Your task to perform on an android device: Open network settings Image 0: 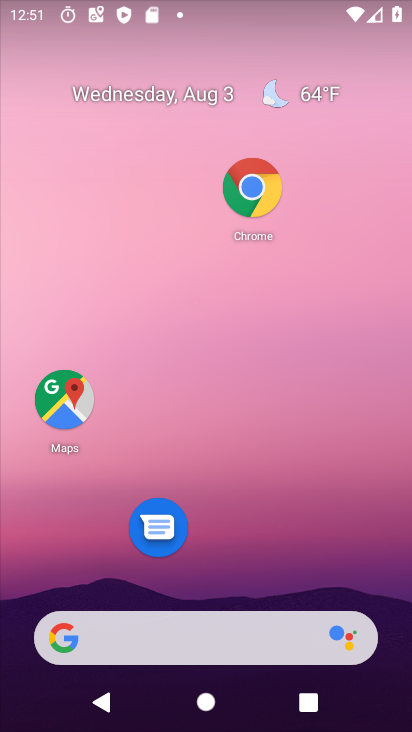
Step 0: drag from (227, 587) to (279, 85)
Your task to perform on an android device: Open network settings Image 1: 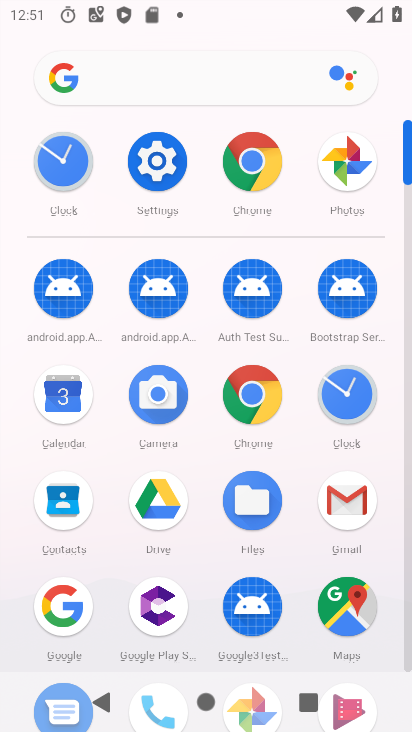
Step 1: click (165, 160)
Your task to perform on an android device: Open network settings Image 2: 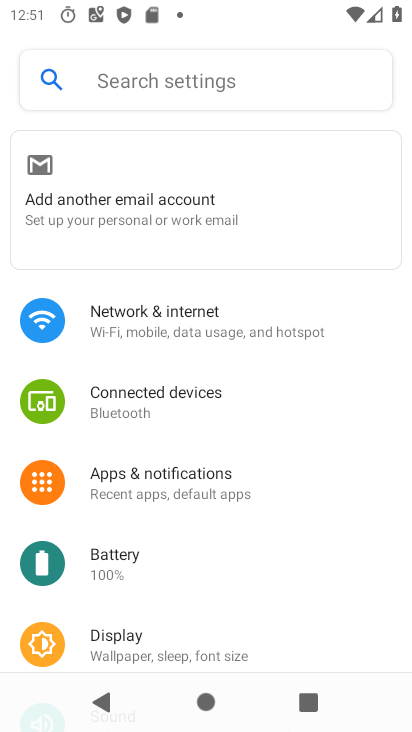
Step 2: click (188, 333)
Your task to perform on an android device: Open network settings Image 3: 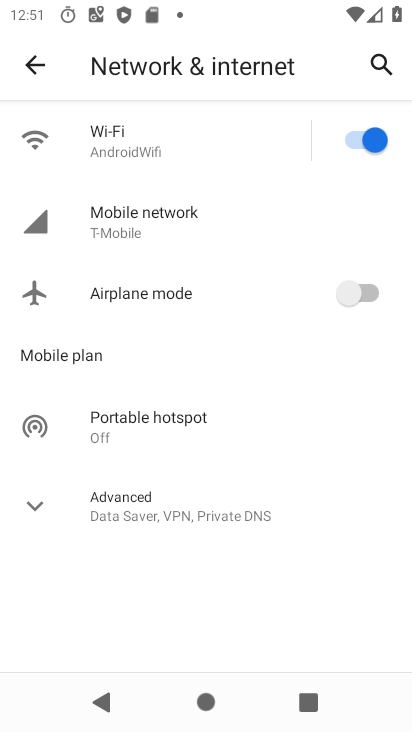
Step 3: click (121, 240)
Your task to perform on an android device: Open network settings Image 4: 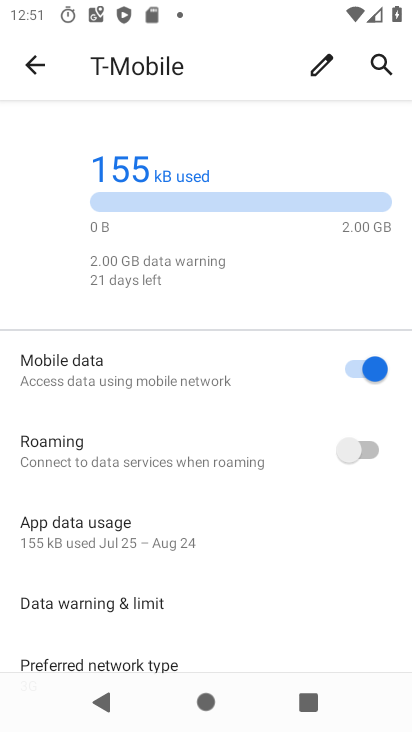
Step 4: task complete